Your task to perform on an android device: Open display settings Image 0: 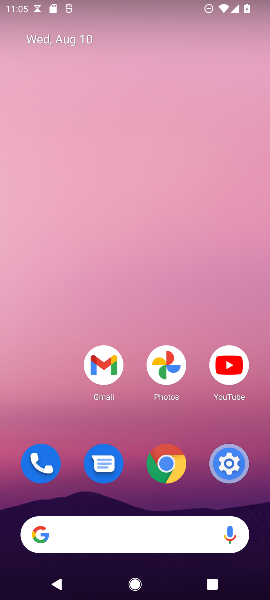
Step 0: click (235, 464)
Your task to perform on an android device: Open display settings Image 1: 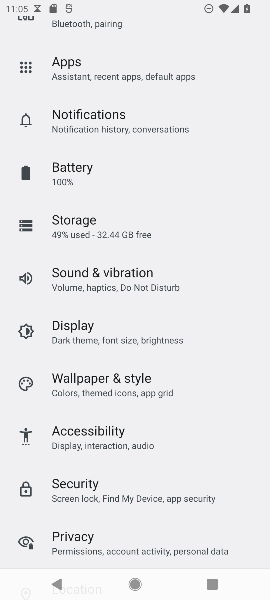
Step 1: click (98, 324)
Your task to perform on an android device: Open display settings Image 2: 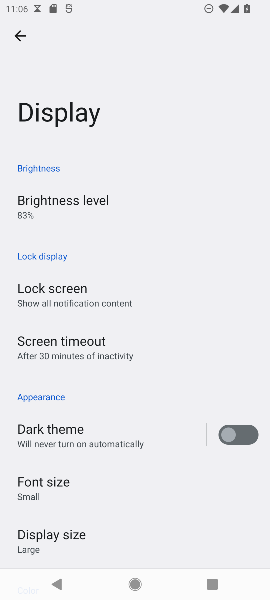
Step 2: task complete